Your task to perform on an android device: Is it going to rain today? Image 0: 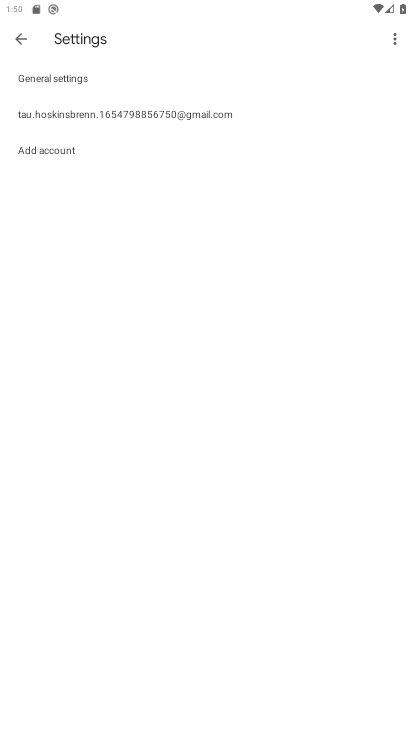
Step 0: press home button
Your task to perform on an android device: Is it going to rain today? Image 1: 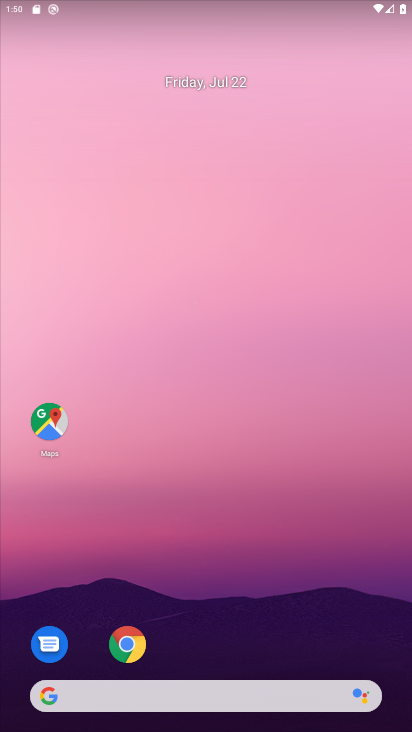
Step 1: click (245, 690)
Your task to perform on an android device: Is it going to rain today? Image 2: 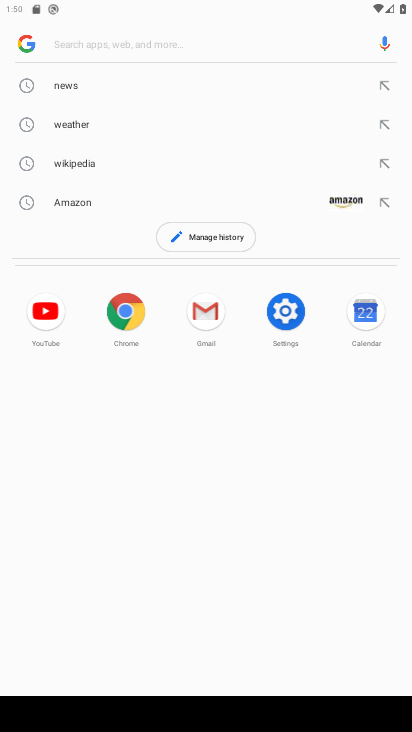
Step 2: type "is it going to rain today"
Your task to perform on an android device: Is it going to rain today? Image 3: 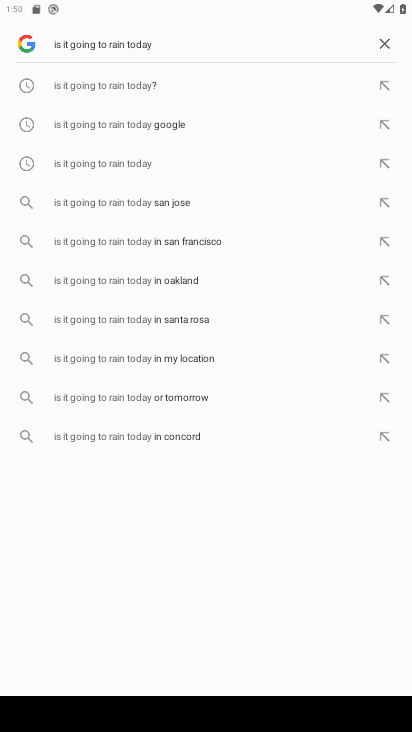
Step 3: click (172, 83)
Your task to perform on an android device: Is it going to rain today? Image 4: 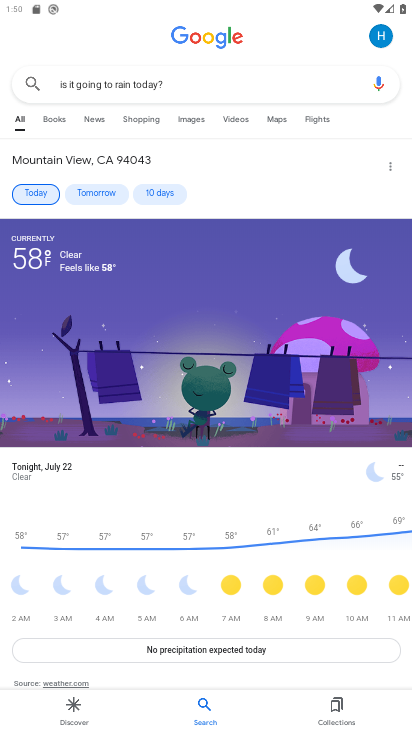
Step 4: task complete